Your task to perform on an android device: toggle priority inbox in the gmail app Image 0: 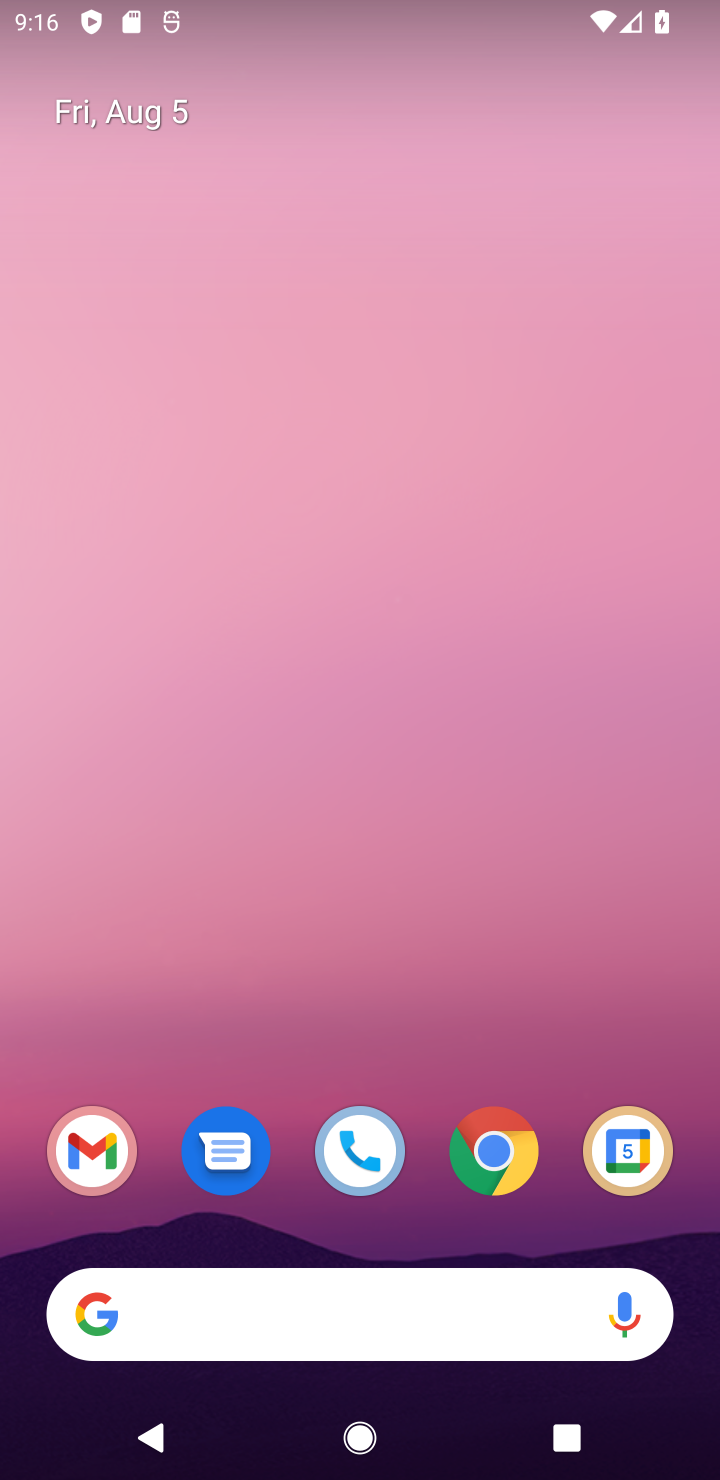
Step 0: click (72, 1156)
Your task to perform on an android device: toggle priority inbox in the gmail app Image 1: 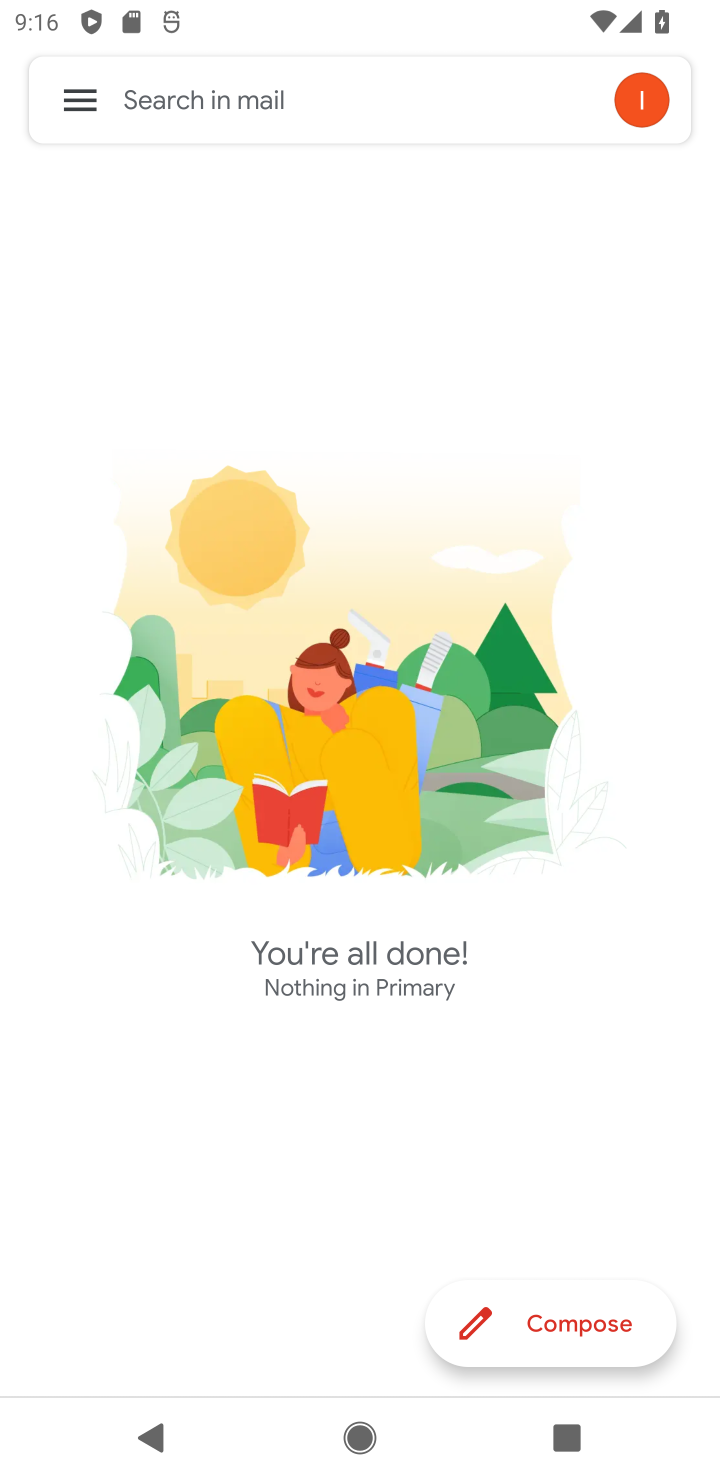
Step 1: click (86, 105)
Your task to perform on an android device: toggle priority inbox in the gmail app Image 2: 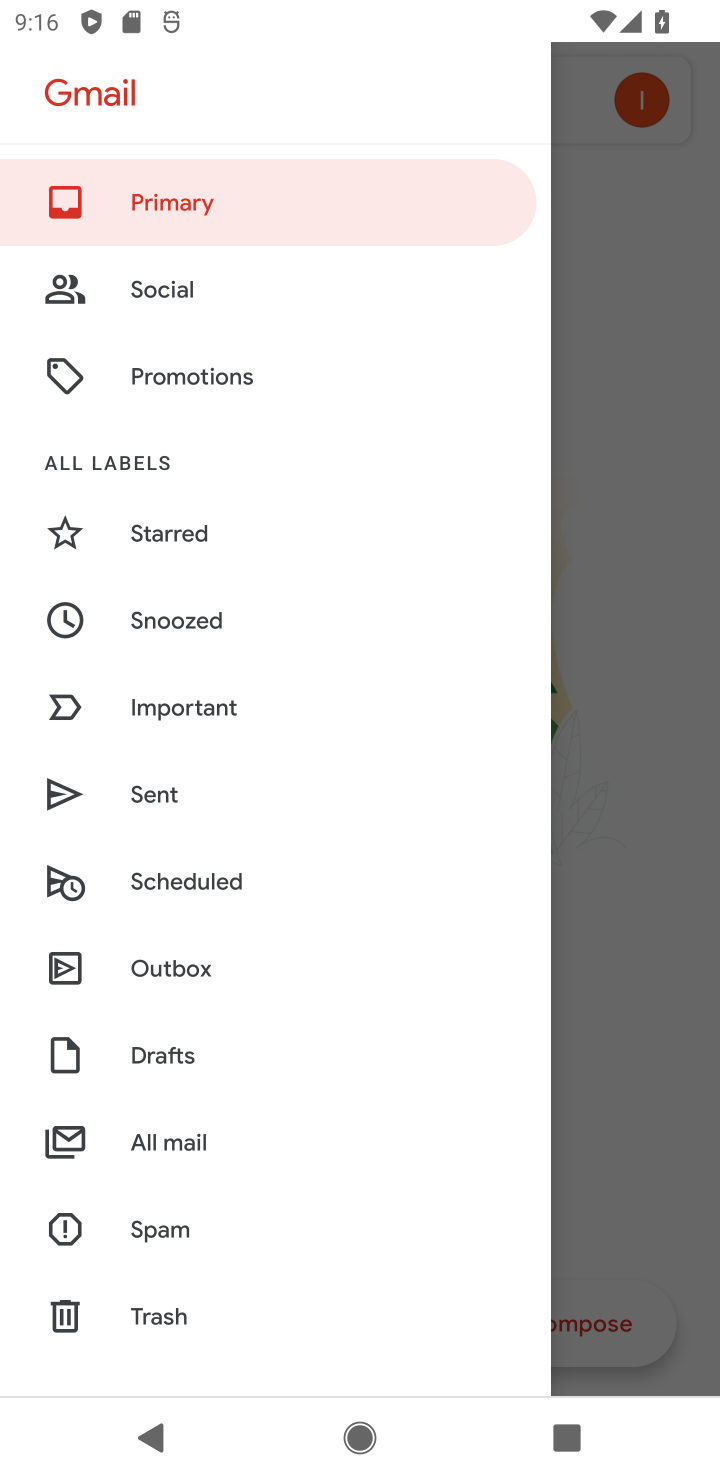
Step 2: drag from (240, 1194) to (247, 594)
Your task to perform on an android device: toggle priority inbox in the gmail app Image 3: 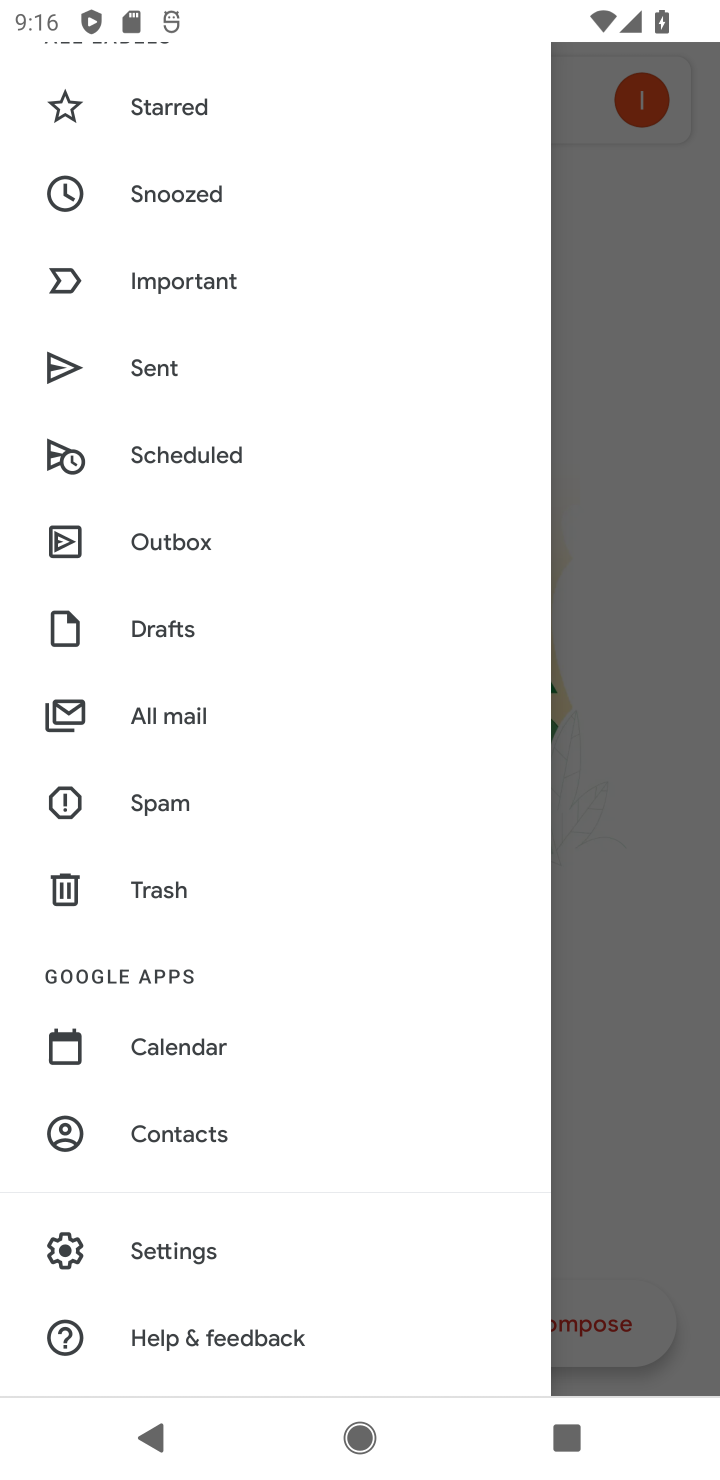
Step 3: click (191, 1248)
Your task to perform on an android device: toggle priority inbox in the gmail app Image 4: 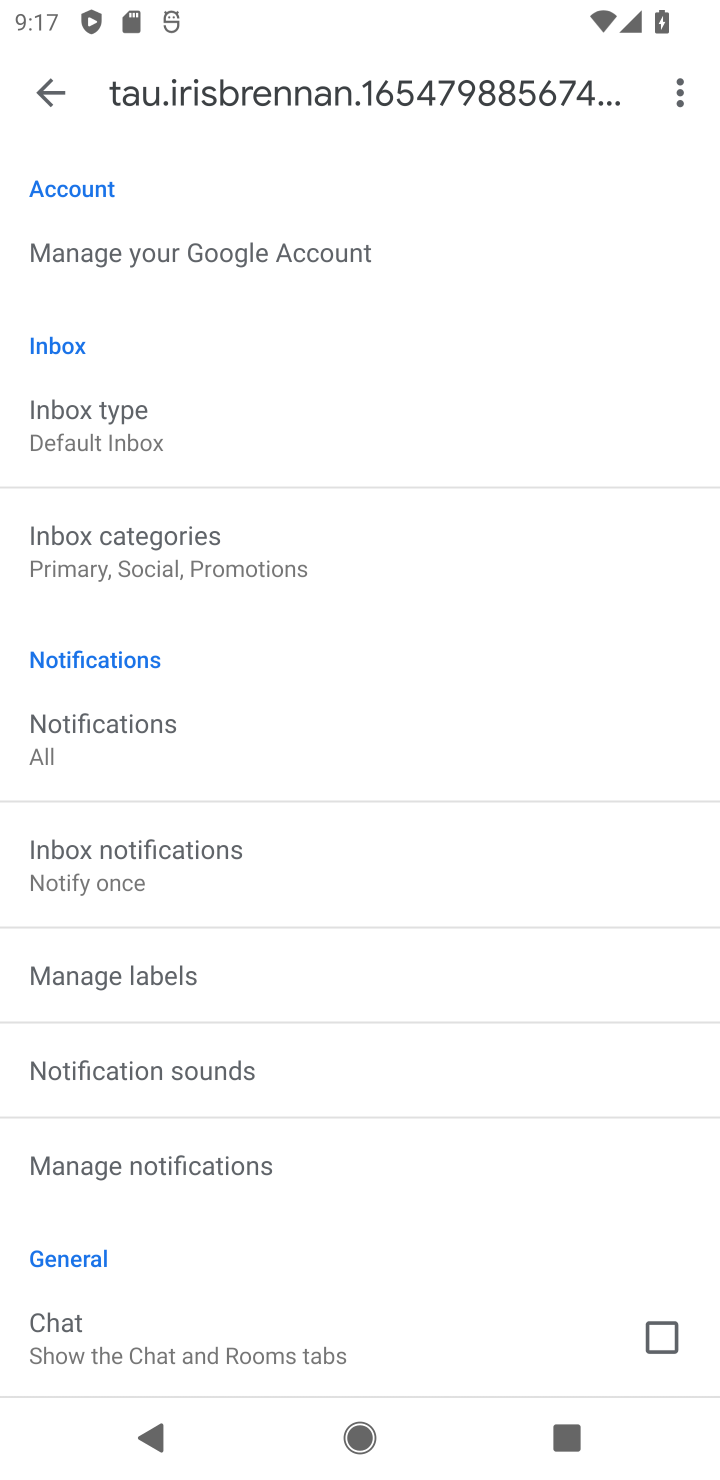
Step 4: click (99, 433)
Your task to perform on an android device: toggle priority inbox in the gmail app Image 5: 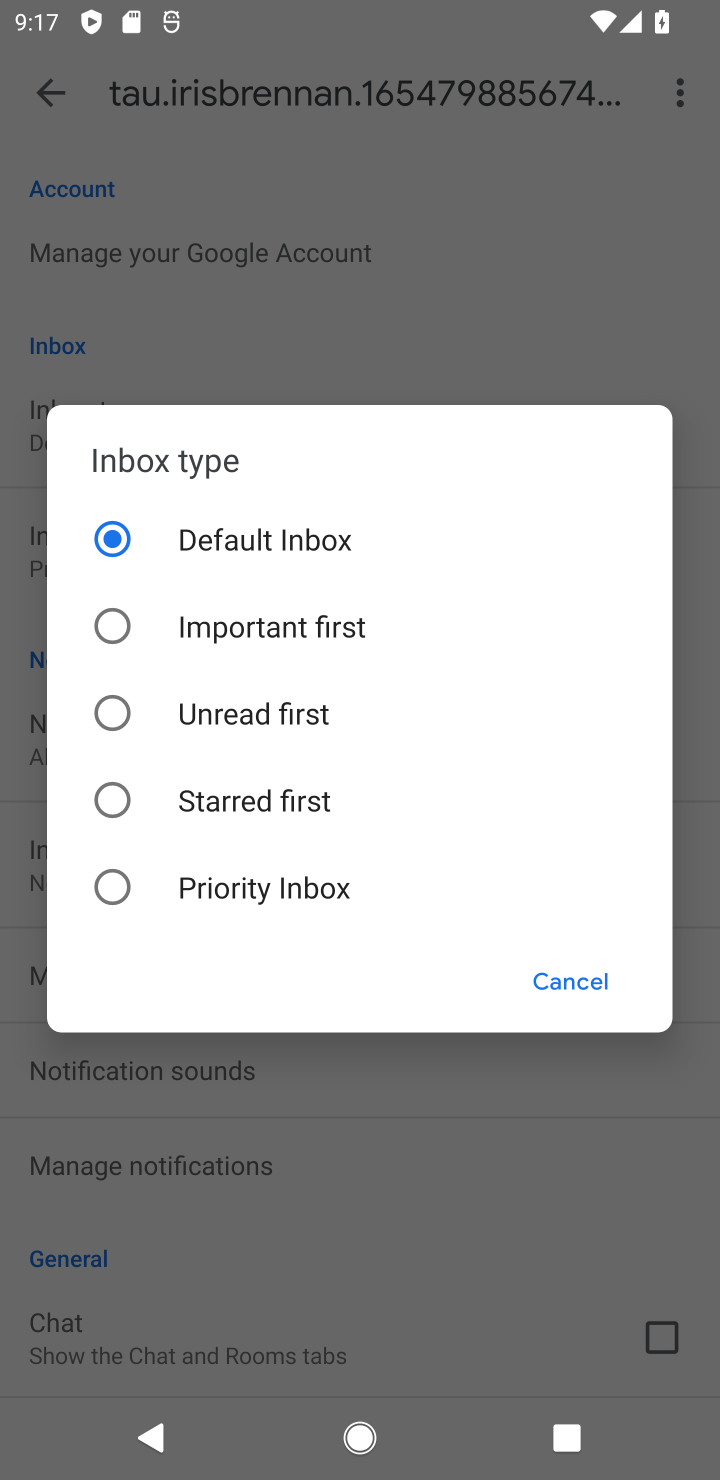
Step 5: click (110, 897)
Your task to perform on an android device: toggle priority inbox in the gmail app Image 6: 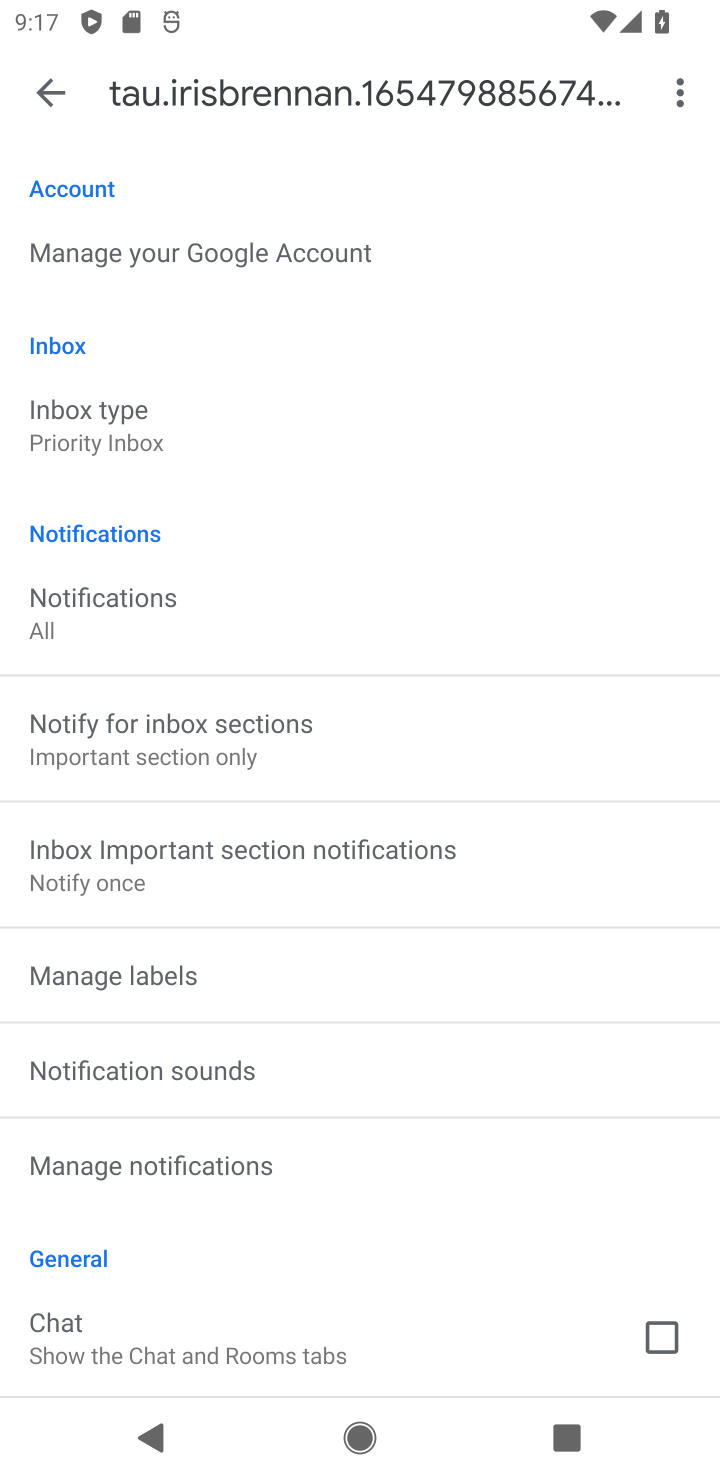
Step 6: task complete